Your task to perform on an android device: Go to Android settings Image 0: 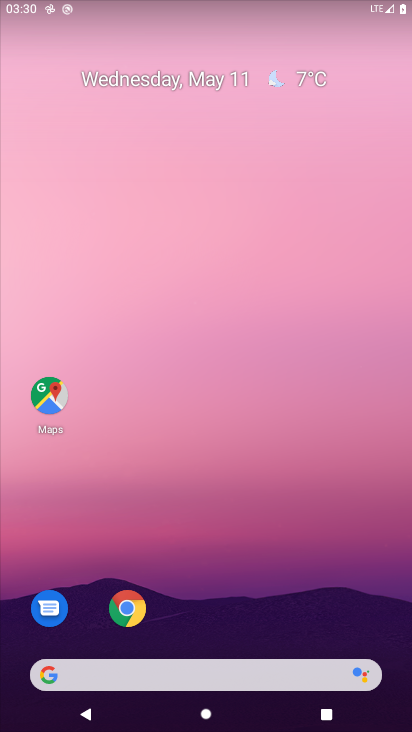
Step 0: drag from (233, 649) to (241, 10)
Your task to perform on an android device: Go to Android settings Image 1: 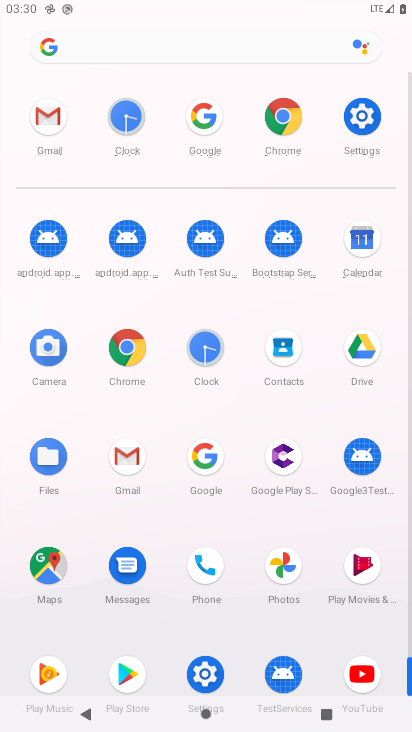
Step 1: click (361, 113)
Your task to perform on an android device: Go to Android settings Image 2: 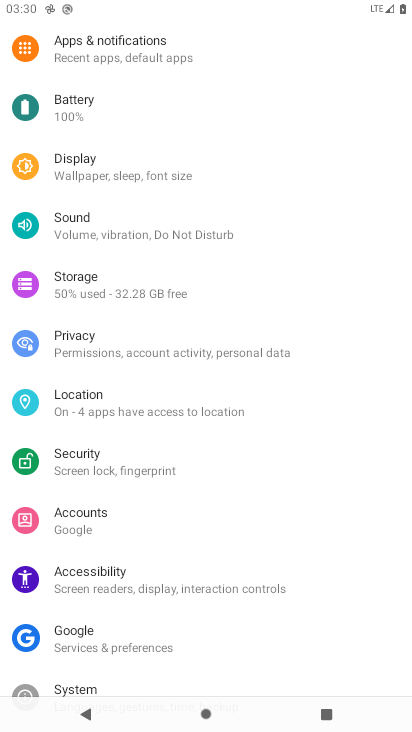
Step 2: drag from (159, 667) to (181, 286)
Your task to perform on an android device: Go to Android settings Image 3: 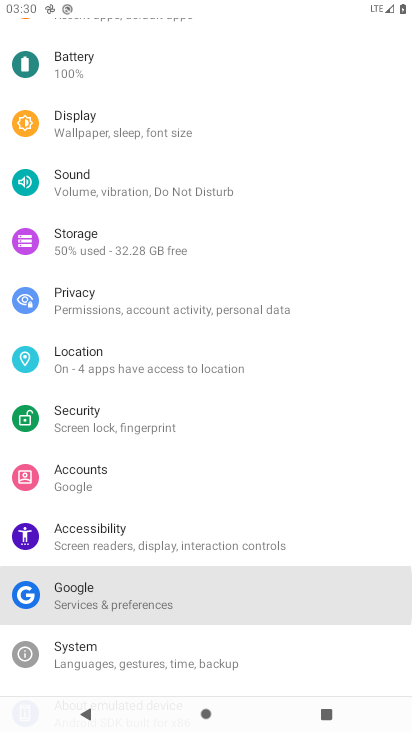
Step 3: click (195, 72)
Your task to perform on an android device: Go to Android settings Image 4: 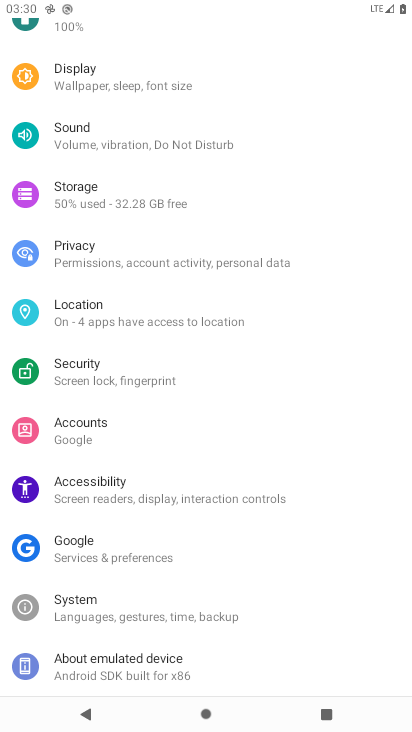
Step 4: click (166, 667)
Your task to perform on an android device: Go to Android settings Image 5: 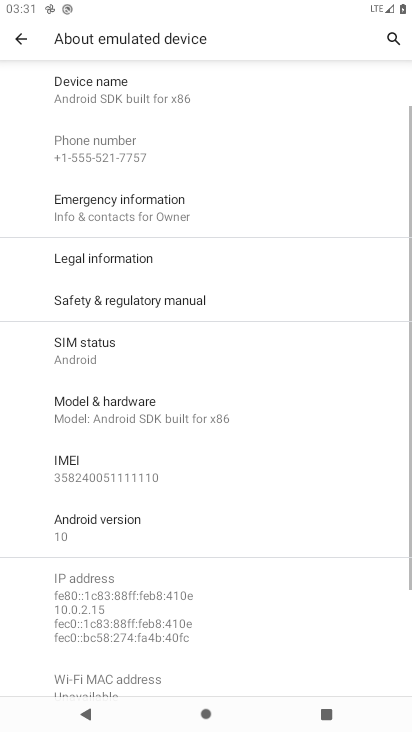
Step 5: click (125, 526)
Your task to perform on an android device: Go to Android settings Image 6: 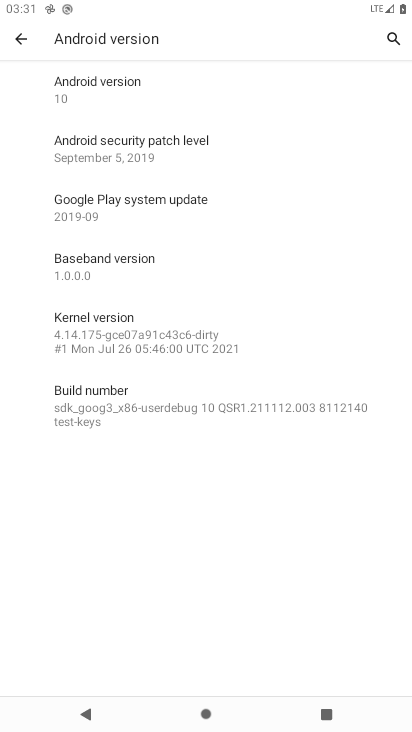
Step 6: task complete